Your task to perform on an android device: What's on my calendar today? Image 0: 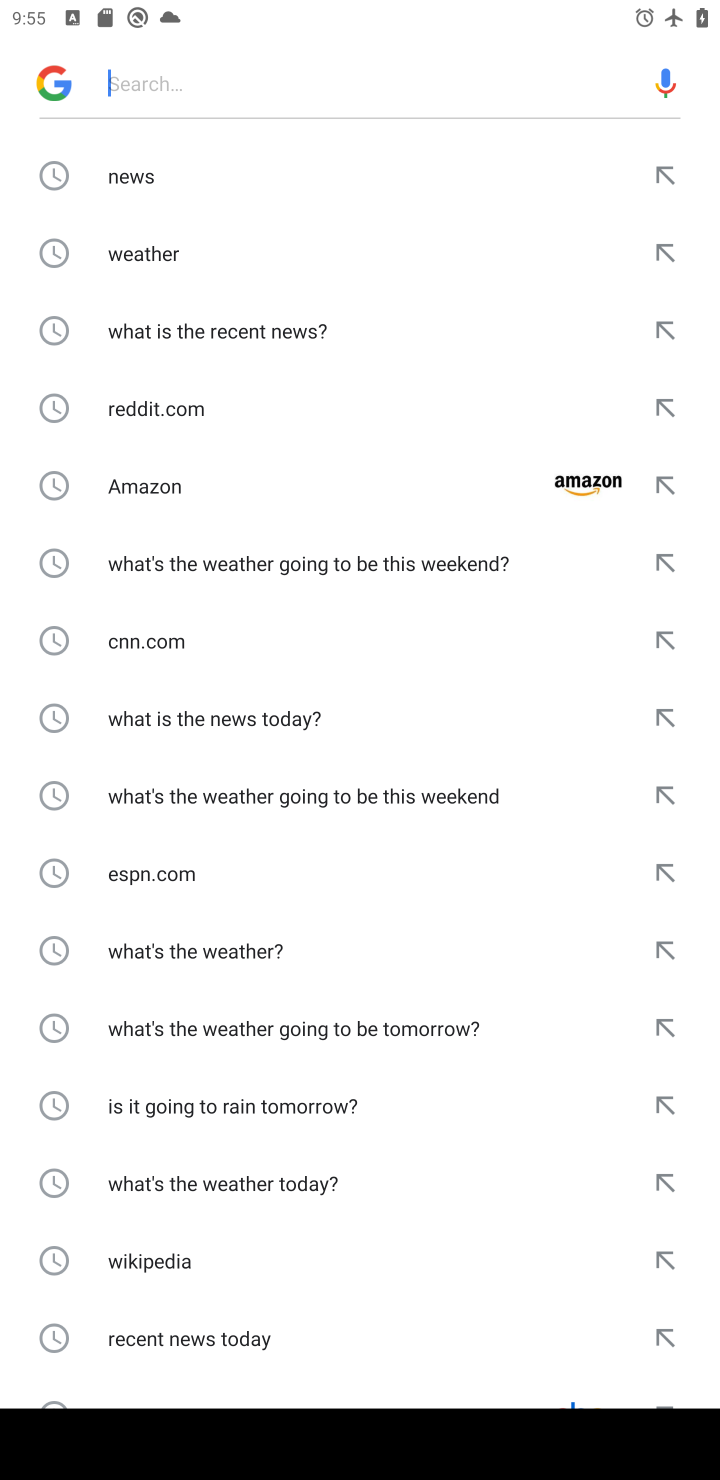
Step 0: press home button
Your task to perform on an android device: What's on my calendar today? Image 1: 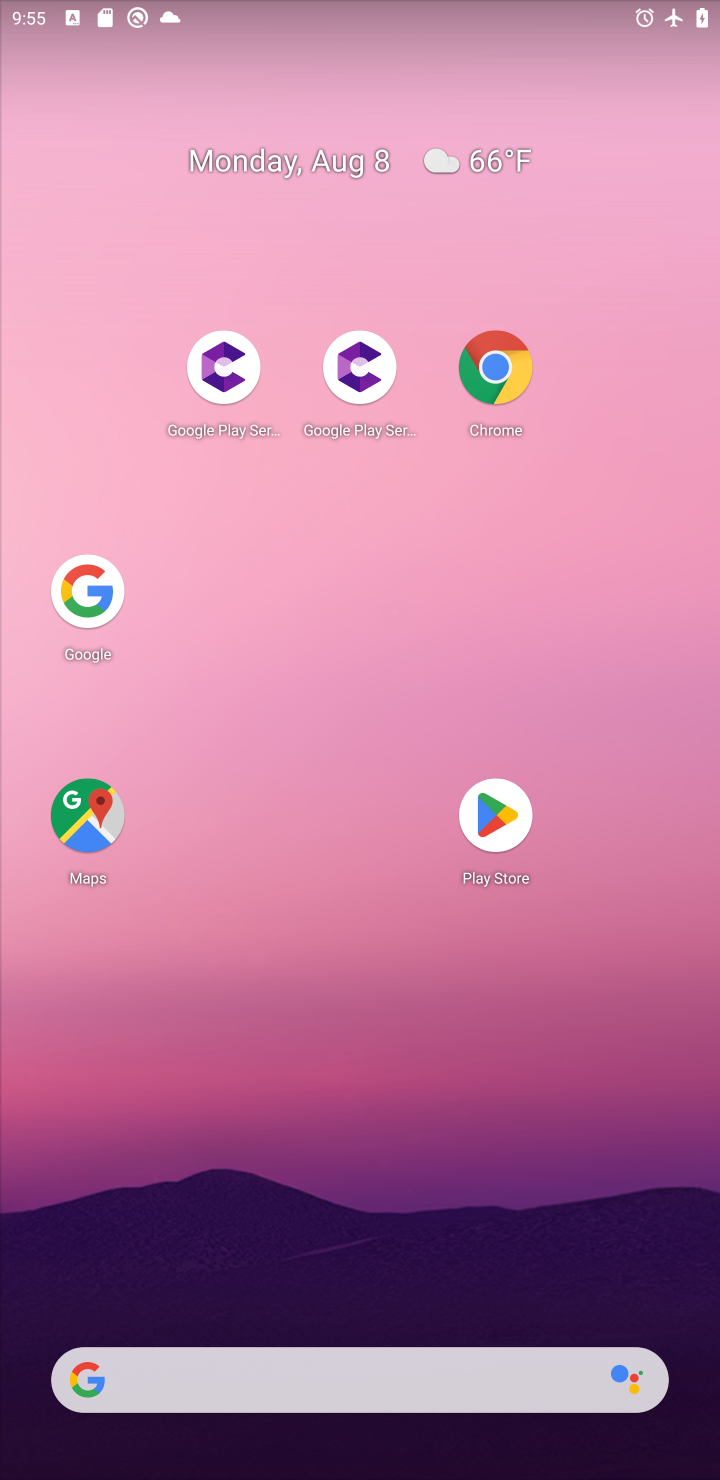
Step 1: click (303, 171)
Your task to perform on an android device: What's on my calendar today? Image 2: 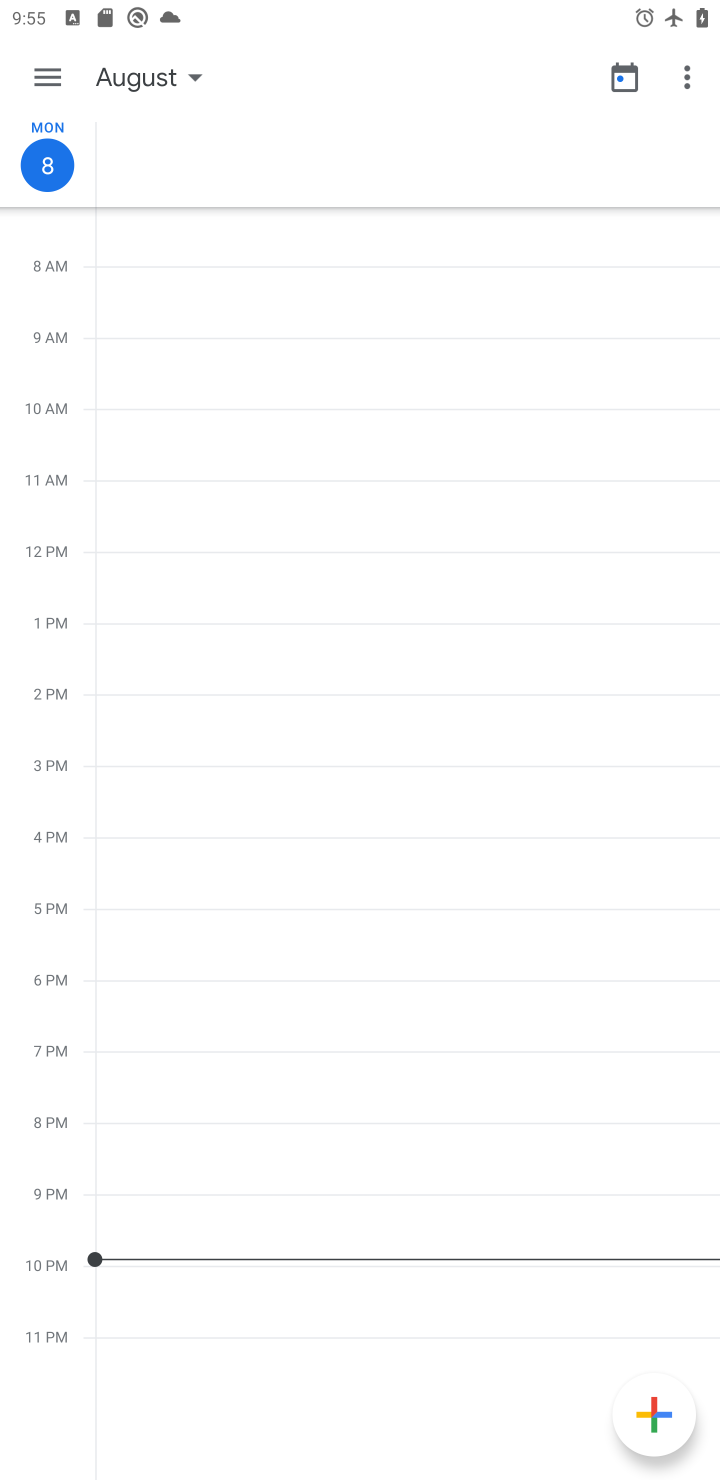
Step 2: click (171, 65)
Your task to perform on an android device: What's on my calendar today? Image 3: 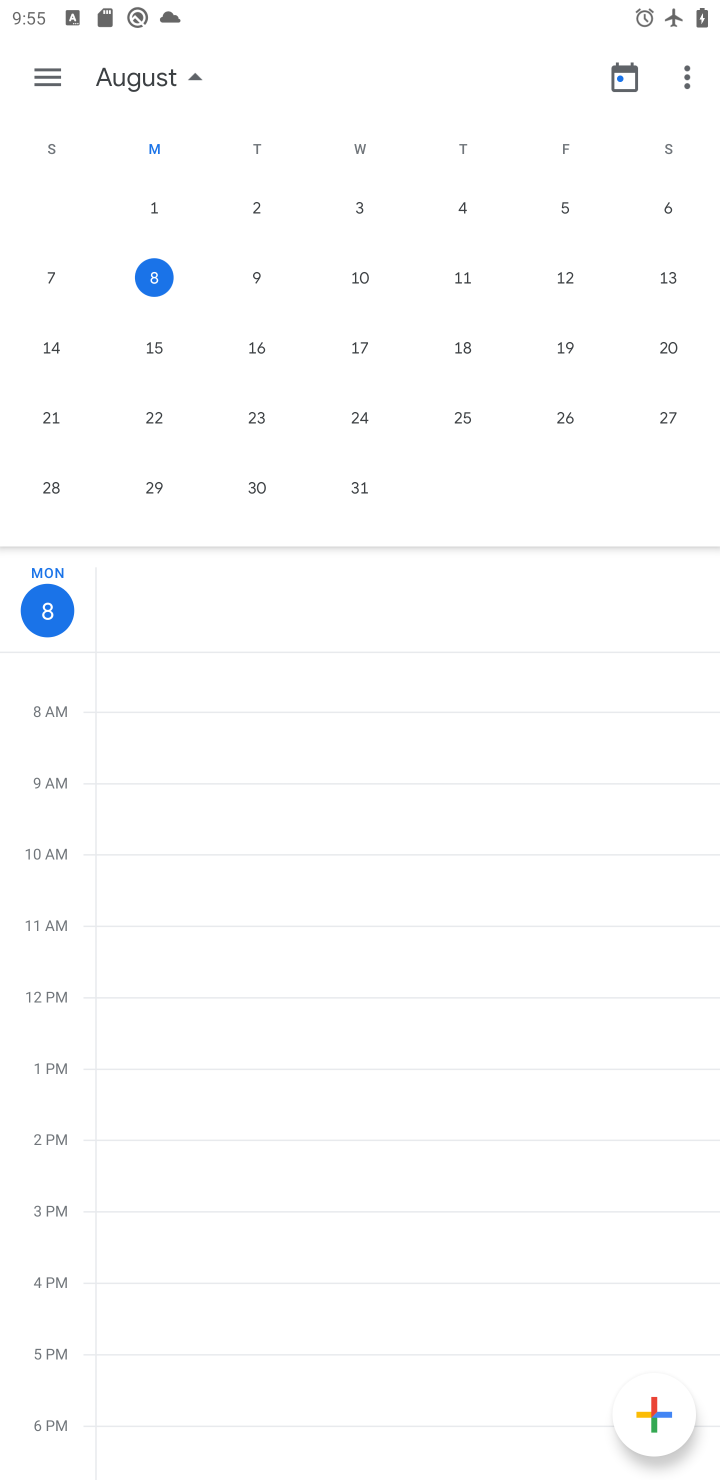
Step 3: click (253, 270)
Your task to perform on an android device: What's on my calendar today? Image 4: 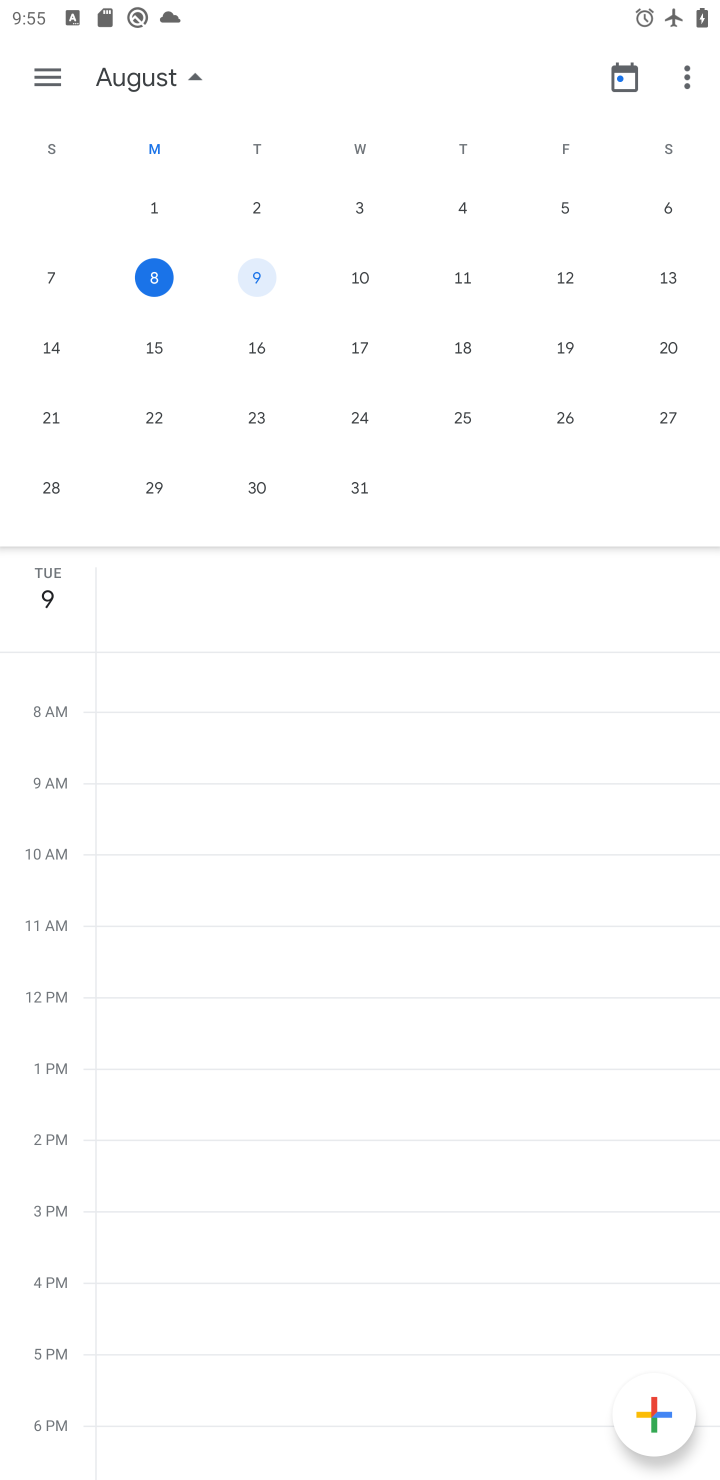
Step 4: task complete